Your task to perform on an android device: open app "Upside-Cash back on gas & food" (install if not already installed) Image 0: 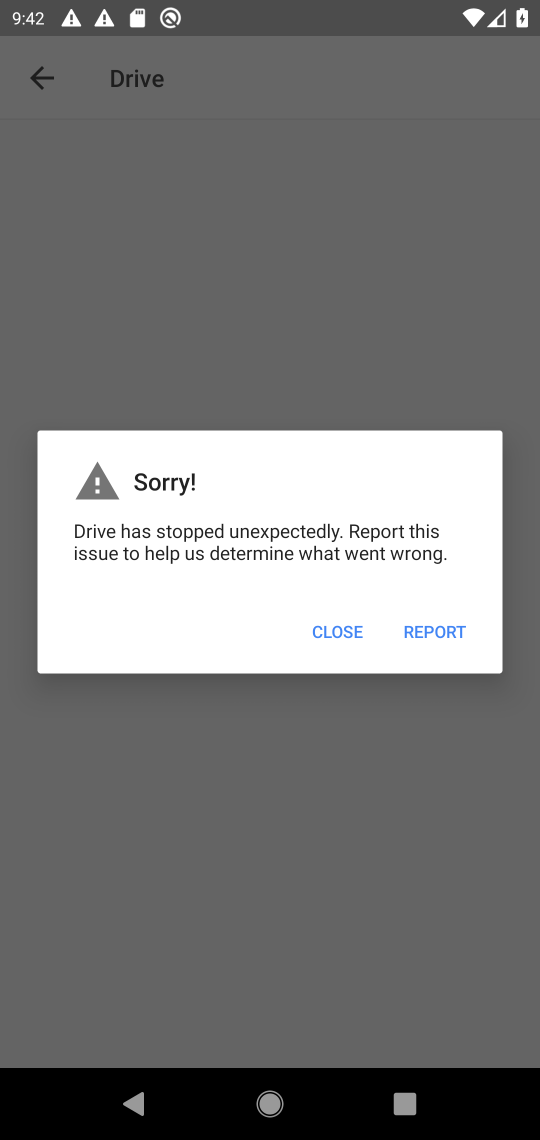
Step 0: press home button
Your task to perform on an android device: open app "Upside-Cash back on gas & food" (install if not already installed) Image 1: 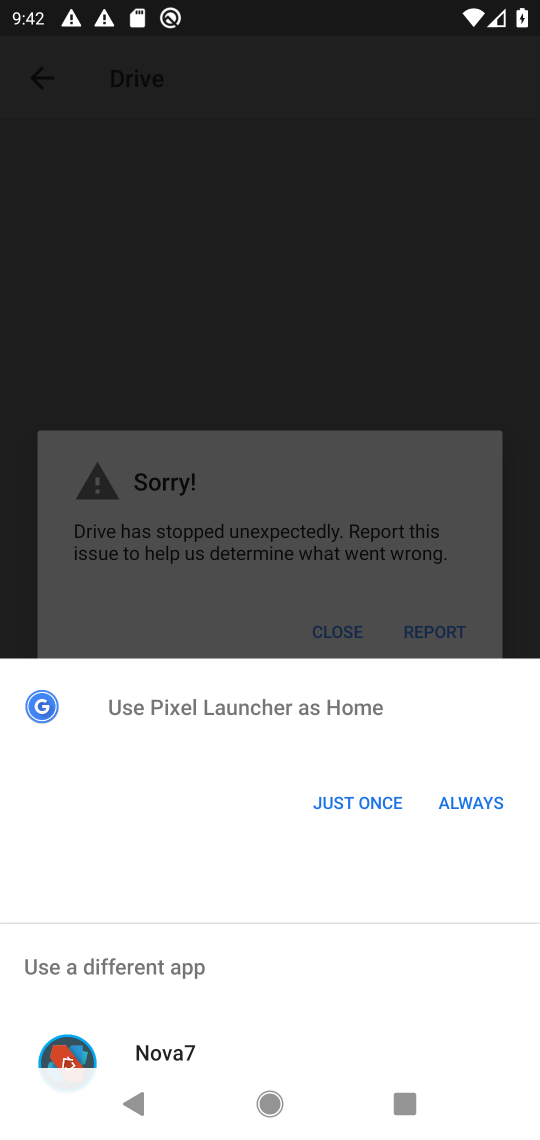
Step 1: click (364, 794)
Your task to perform on an android device: open app "Upside-Cash back on gas & food" (install if not already installed) Image 2: 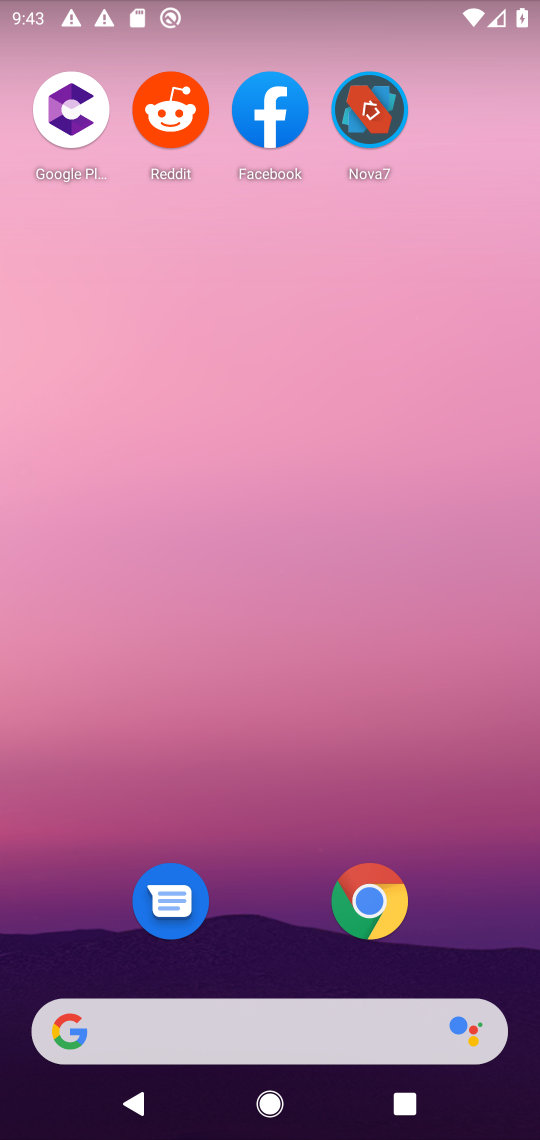
Step 2: drag from (372, 1011) to (271, 21)
Your task to perform on an android device: open app "Upside-Cash back on gas & food" (install if not already installed) Image 3: 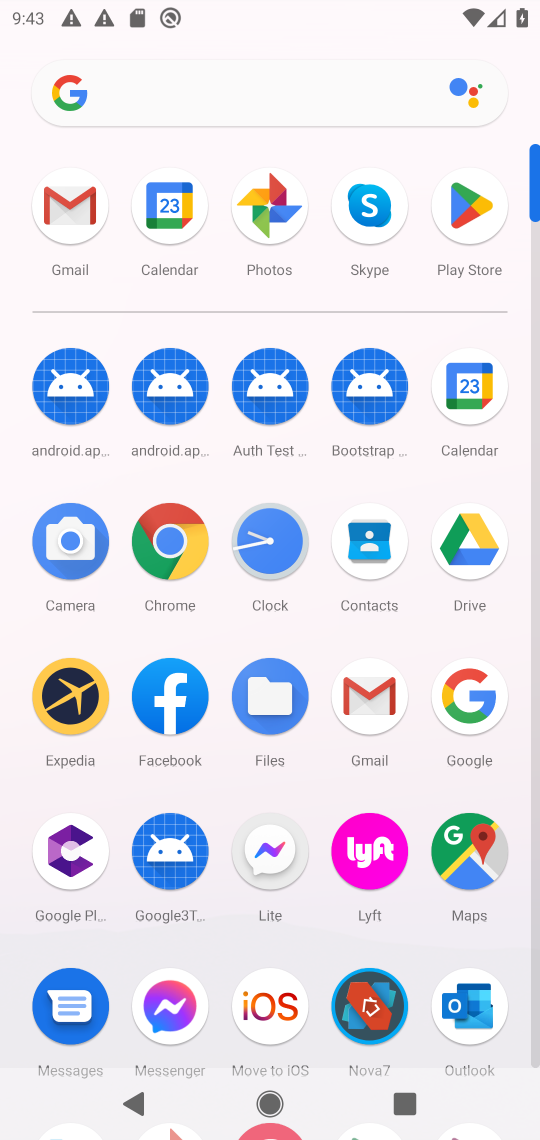
Step 3: click (460, 231)
Your task to perform on an android device: open app "Upside-Cash back on gas & food" (install if not already installed) Image 4: 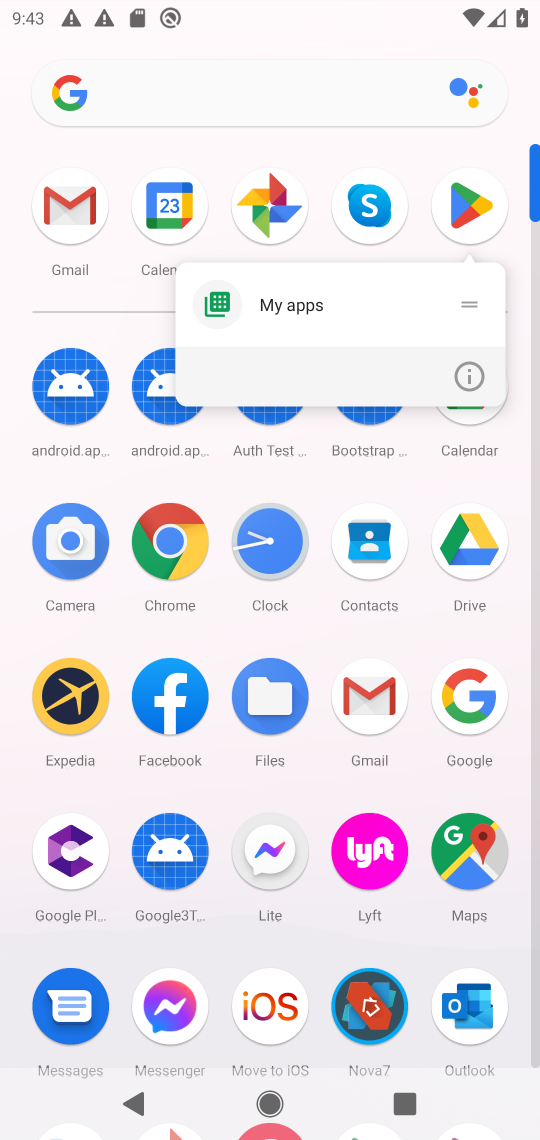
Step 4: click (460, 229)
Your task to perform on an android device: open app "Upside-Cash back on gas & food" (install if not already installed) Image 5: 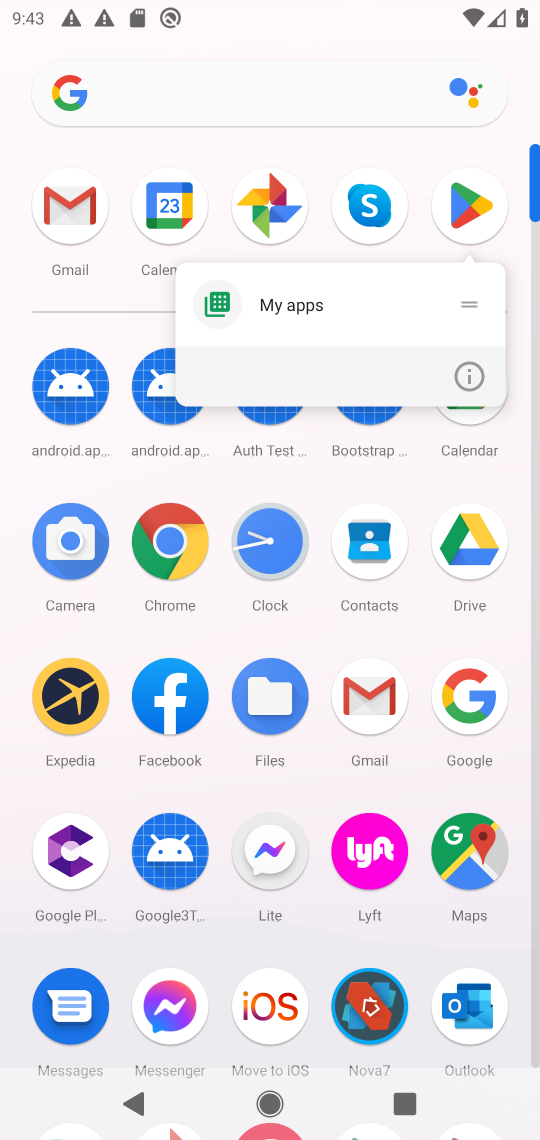
Step 5: click (460, 227)
Your task to perform on an android device: open app "Upside-Cash back on gas & food" (install if not already installed) Image 6: 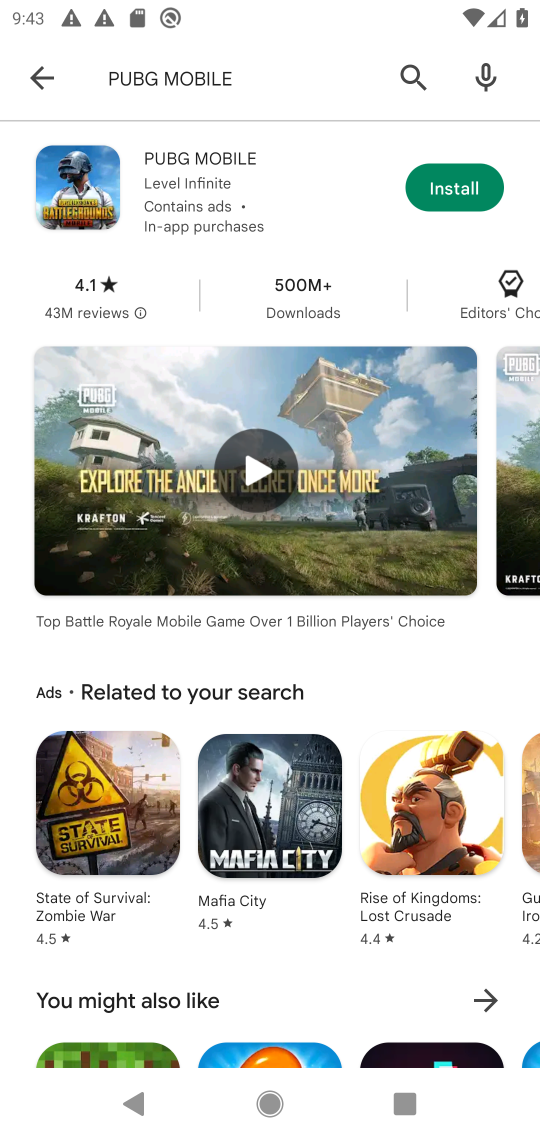
Step 6: press back button
Your task to perform on an android device: open app "Upside-Cash back on gas & food" (install if not already installed) Image 7: 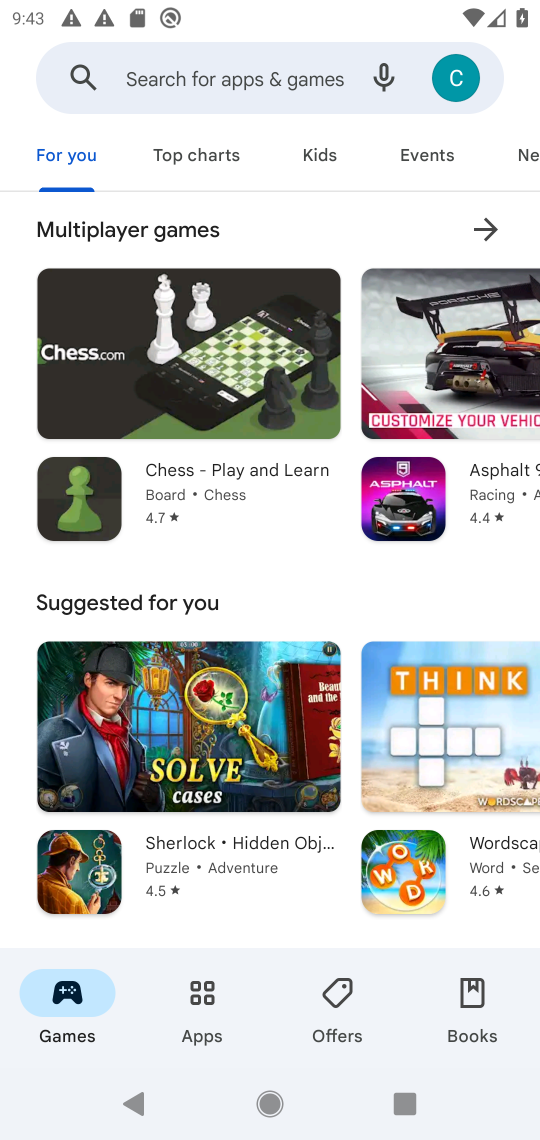
Step 7: click (210, 80)
Your task to perform on an android device: open app "Upside-Cash back on gas & food" (install if not already installed) Image 8: 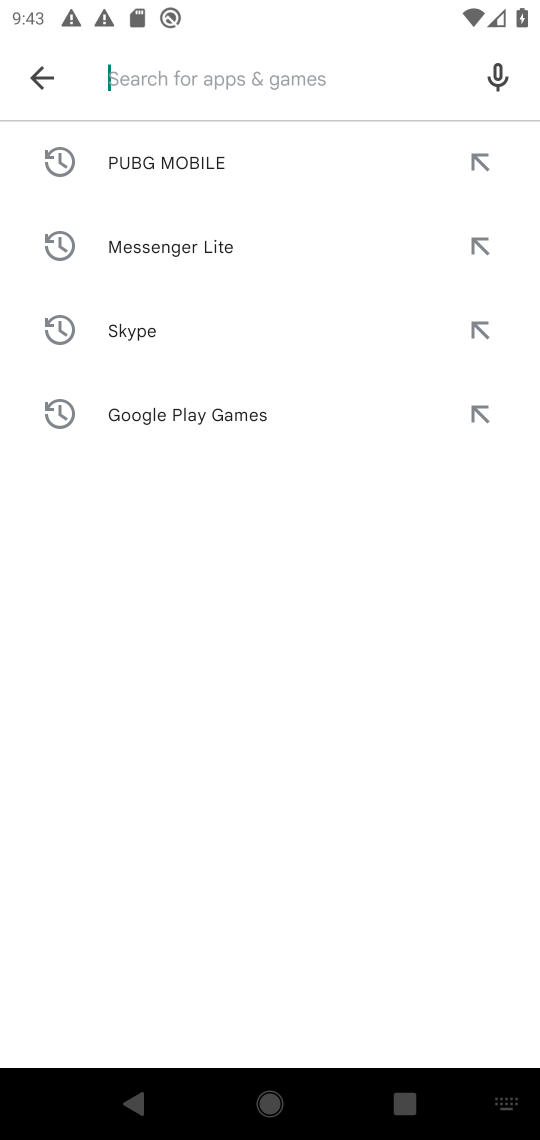
Step 8: type "Upside-Cash back on gas & food"
Your task to perform on an android device: open app "Upside-Cash back on gas & food" (install if not already installed) Image 9: 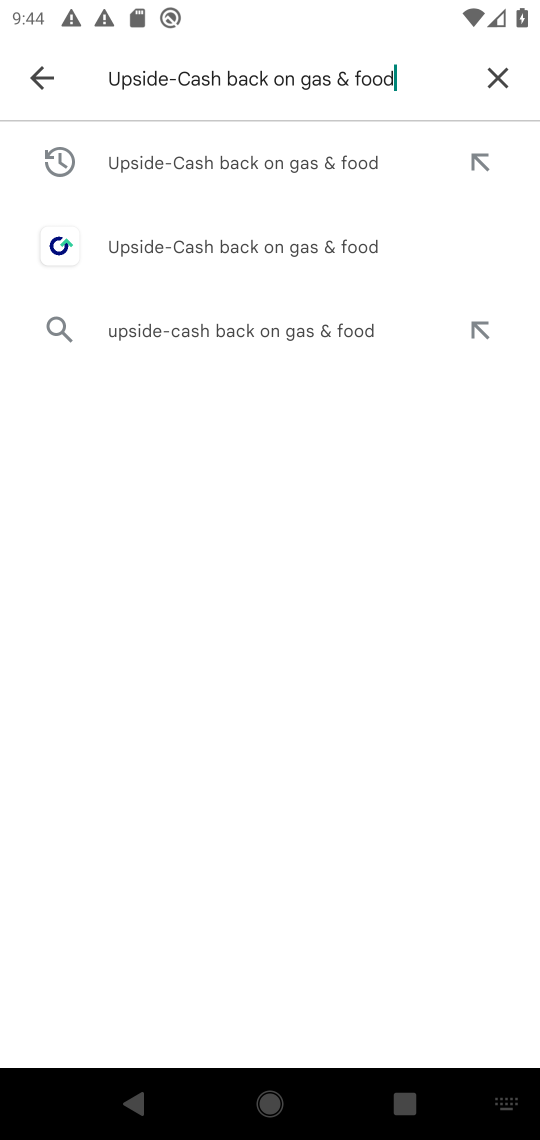
Step 9: click (168, 168)
Your task to perform on an android device: open app "Upside-Cash back on gas & food" (install if not already installed) Image 10: 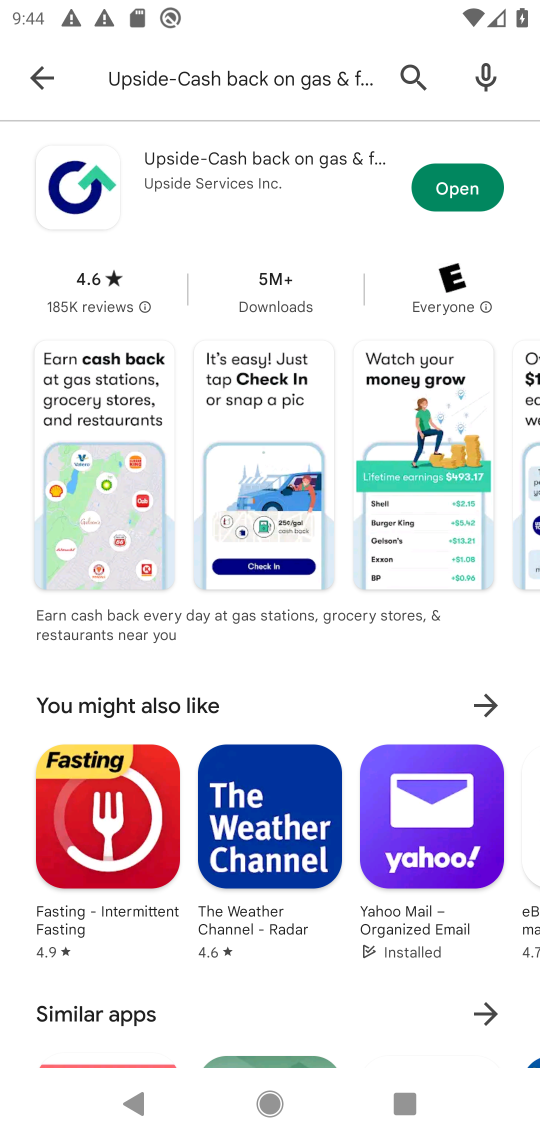
Step 10: click (453, 185)
Your task to perform on an android device: open app "Upside-Cash back on gas & food" (install if not already installed) Image 11: 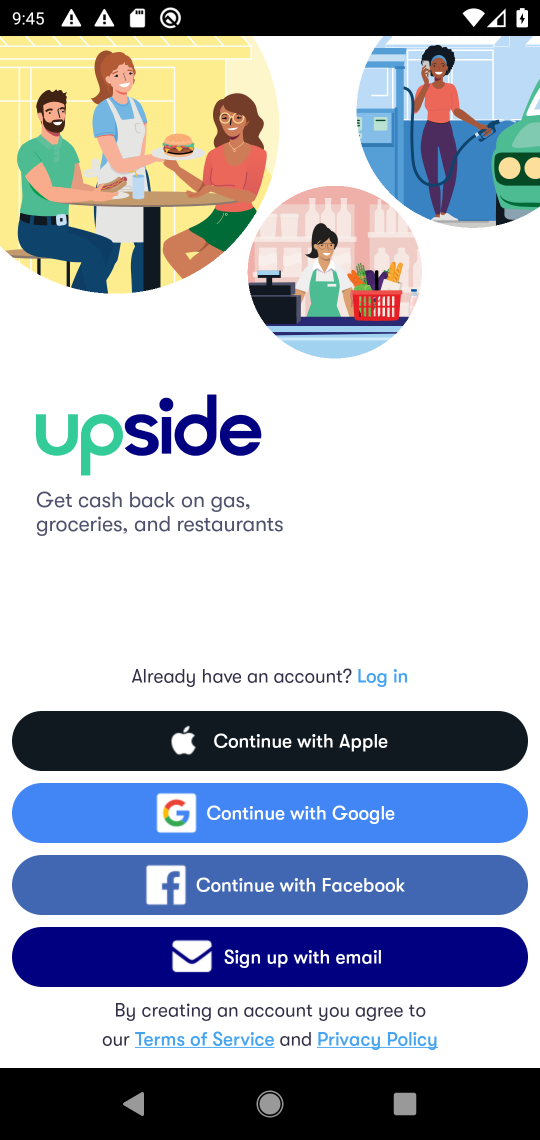
Step 11: task complete